Your task to perform on an android device: Turn on the flashlight Image 0: 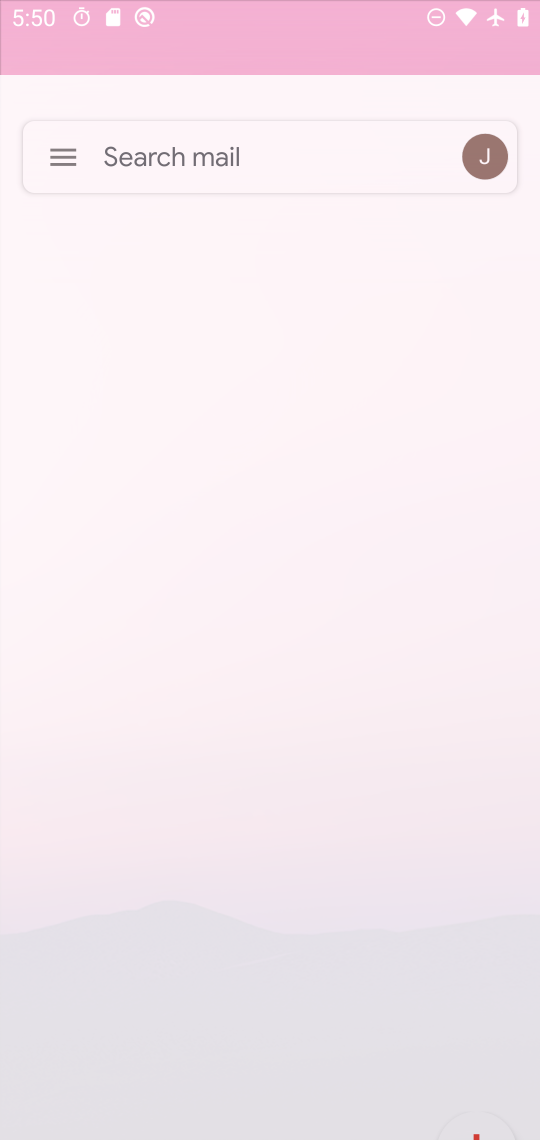
Step 0: press home button
Your task to perform on an android device: Turn on the flashlight Image 1: 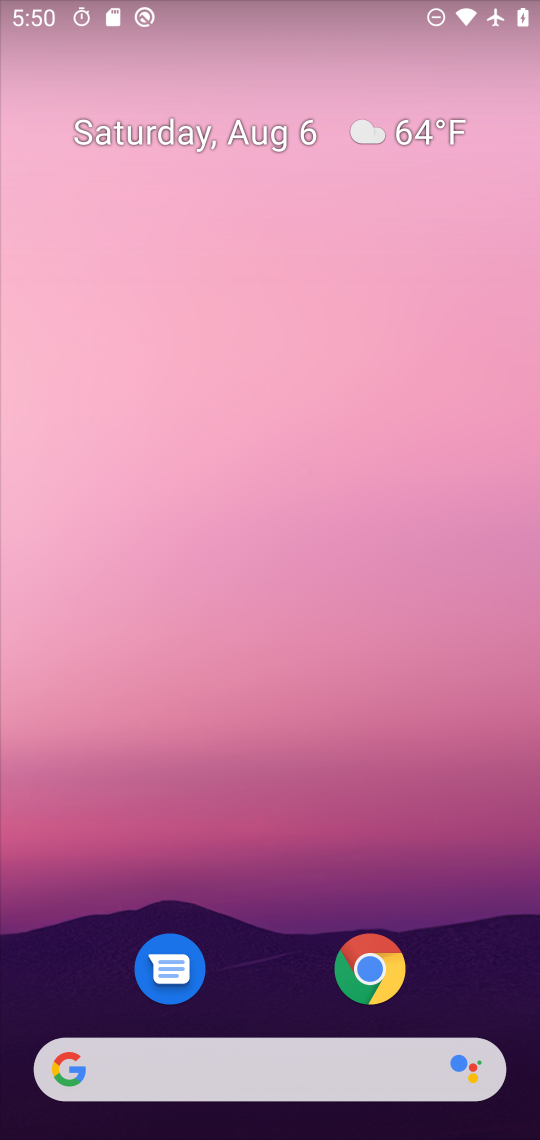
Step 1: task complete